Your task to perform on an android device: Go to Amazon Image 0: 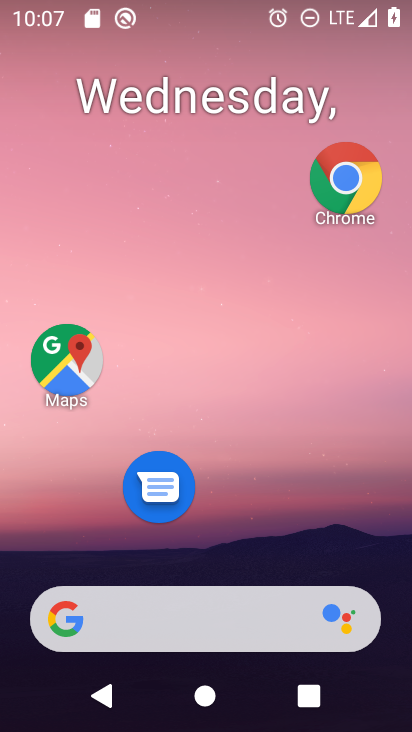
Step 0: drag from (250, 577) to (252, 82)
Your task to perform on an android device: Go to Amazon Image 1: 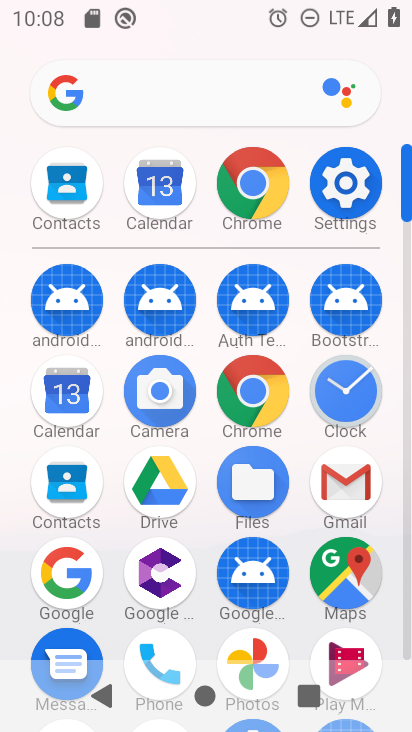
Step 1: click (273, 218)
Your task to perform on an android device: Go to Amazon Image 2: 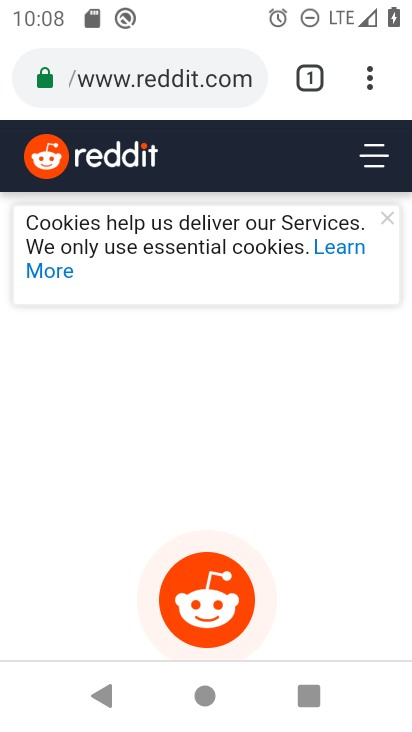
Step 2: click (231, 101)
Your task to perform on an android device: Go to Amazon Image 3: 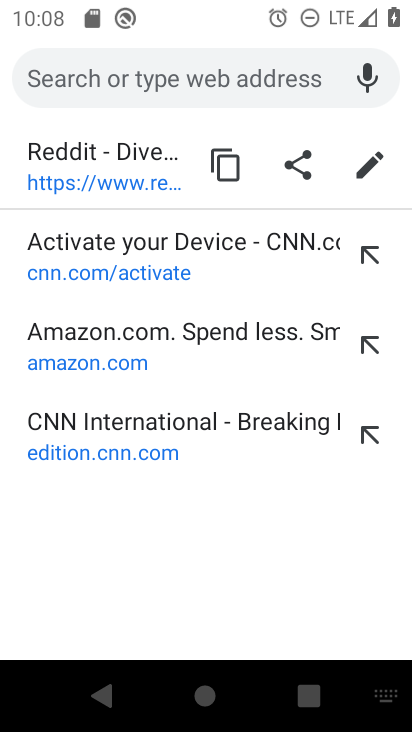
Step 3: click (171, 363)
Your task to perform on an android device: Go to Amazon Image 4: 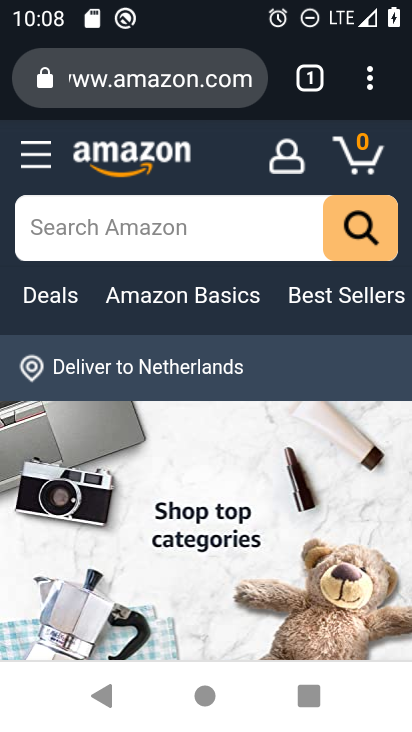
Step 4: task complete